Your task to perform on an android device: Open eBay Image 0: 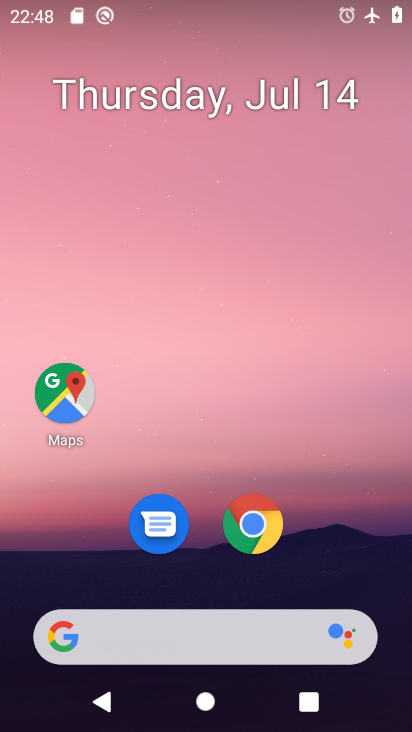
Step 0: click (224, 659)
Your task to perform on an android device: Open eBay Image 1: 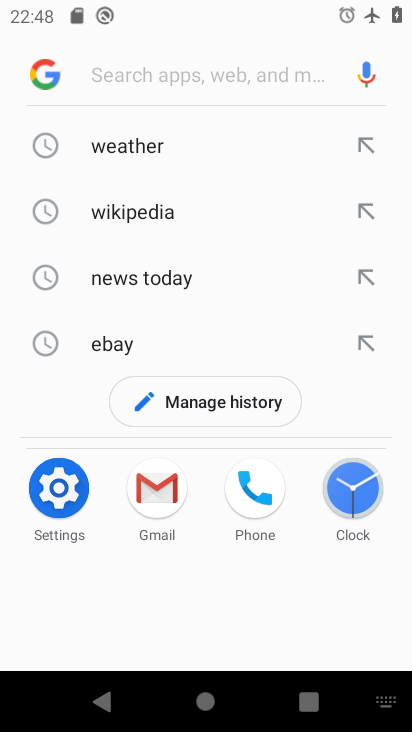
Step 1: click (111, 340)
Your task to perform on an android device: Open eBay Image 2: 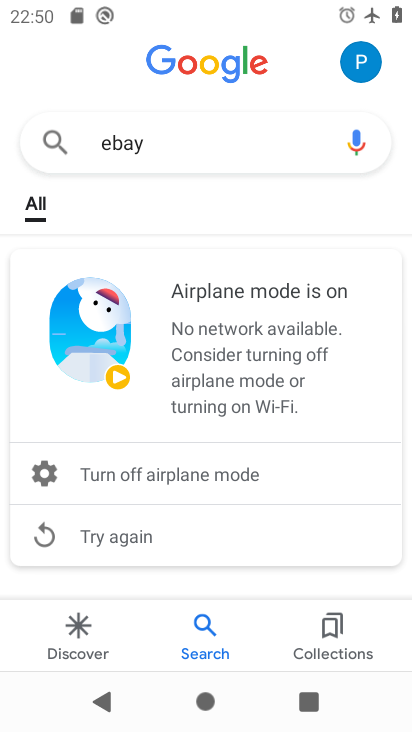
Step 2: task complete